Your task to perform on an android device: open app "Pinterest" (install if not already installed) and go to login screen Image 0: 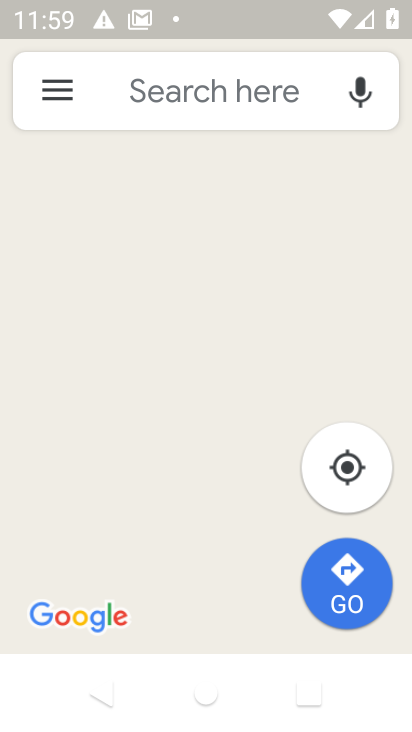
Step 0: press home button
Your task to perform on an android device: open app "Pinterest" (install if not already installed) and go to login screen Image 1: 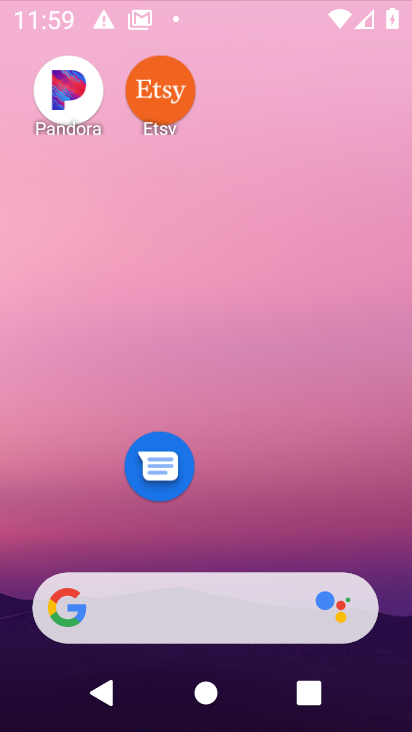
Step 1: press home button
Your task to perform on an android device: open app "Pinterest" (install if not already installed) and go to login screen Image 2: 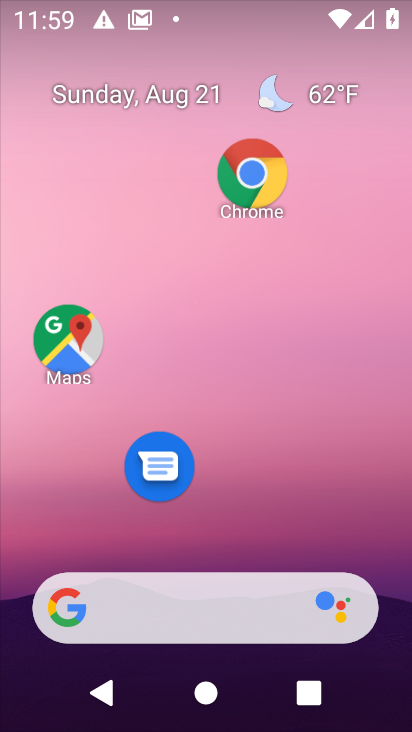
Step 2: drag from (215, 382) to (236, 160)
Your task to perform on an android device: open app "Pinterest" (install if not already installed) and go to login screen Image 3: 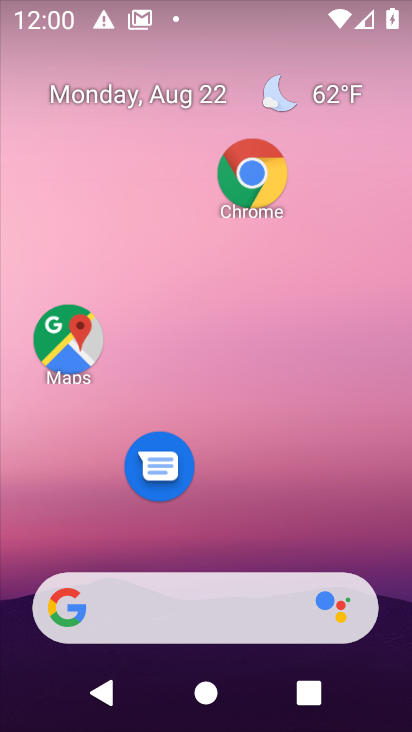
Step 3: drag from (232, 163) to (264, 55)
Your task to perform on an android device: open app "Pinterest" (install if not already installed) and go to login screen Image 4: 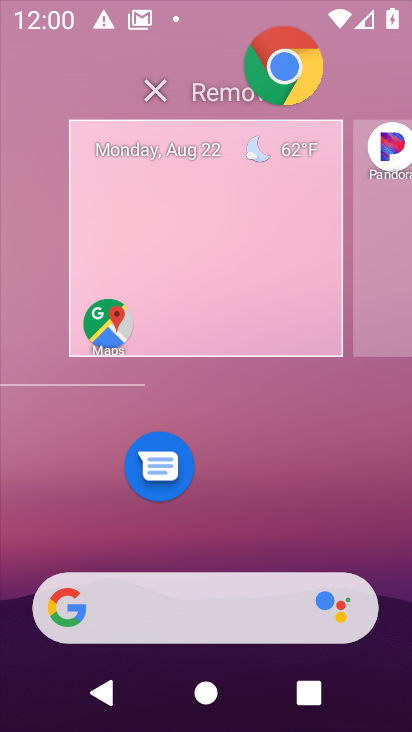
Step 4: click (234, 518)
Your task to perform on an android device: open app "Pinterest" (install if not already installed) and go to login screen Image 5: 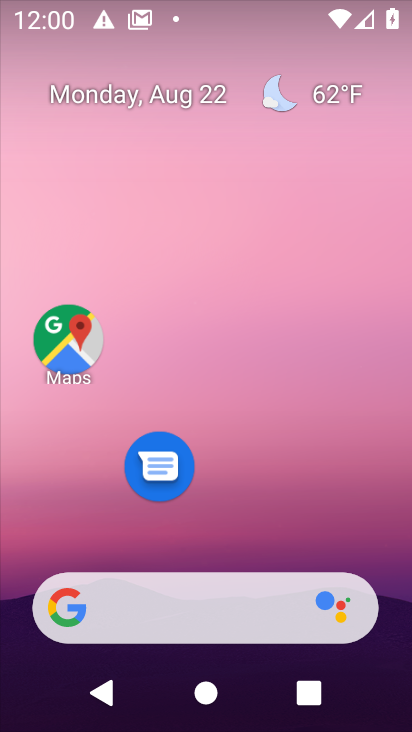
Step 5: drag from (228, 278) to (222, 119)
Your task to perform on an android device: open app "Pinterest" (install if not already installed) and go to login screen Image 6: 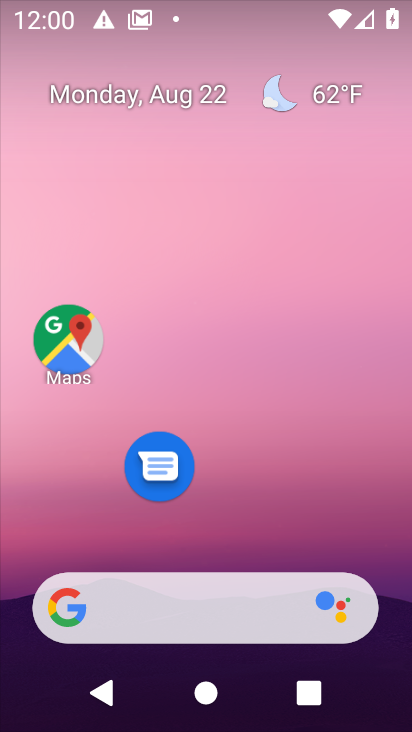
Step 6: drag from (181, 530) to (205, 2)
Your task to perform on an android device: open app "Pinterest" (install if not already installed) and go to login screen Image 7: 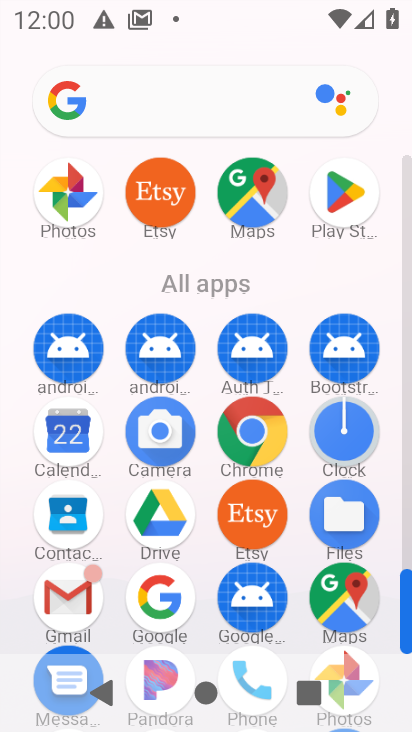
Step 7: click (333, 185)
Your task to perform on an android device: open app "Pinterest" (install if not already installed) and go to login screen Image 8: 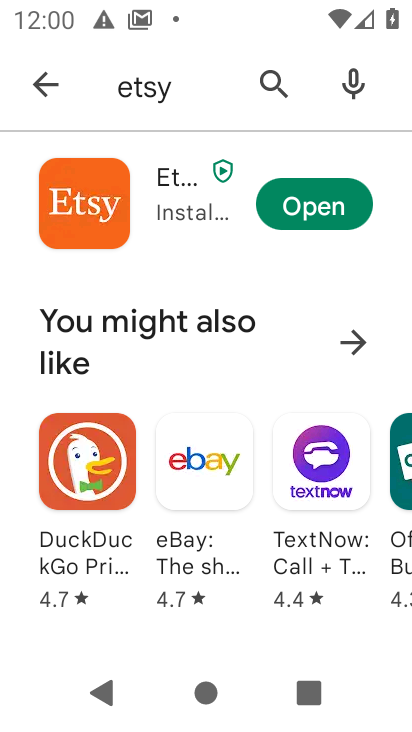
Step 8: click (46, 79)
Your task to perform on an android device: open app "Pinterest" (install if not already installed) and go to login screen Image 9: 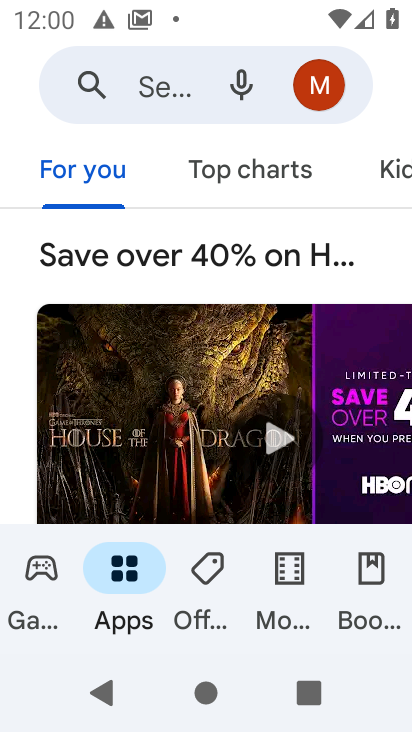
Step 9: click (130, 91)
Your task to perform on an android device: open app "Pinterest" (install if not already installed) and go to login screen Image 10: 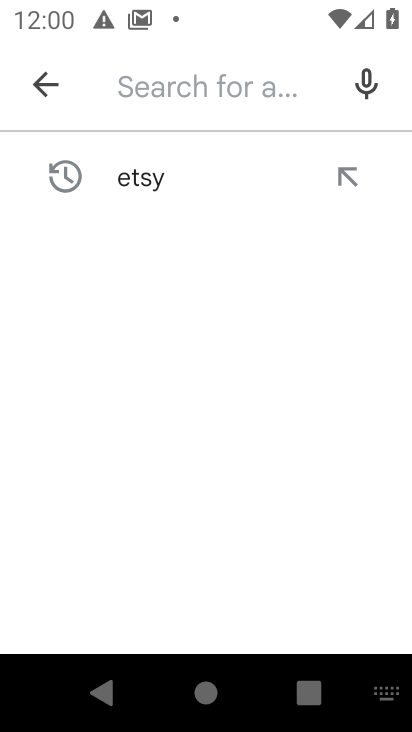
Step 10: type "Pinterest"
Your task to perform on an android device: open app "Pinterest" (install if not already installed) and go to login screen Image 11: 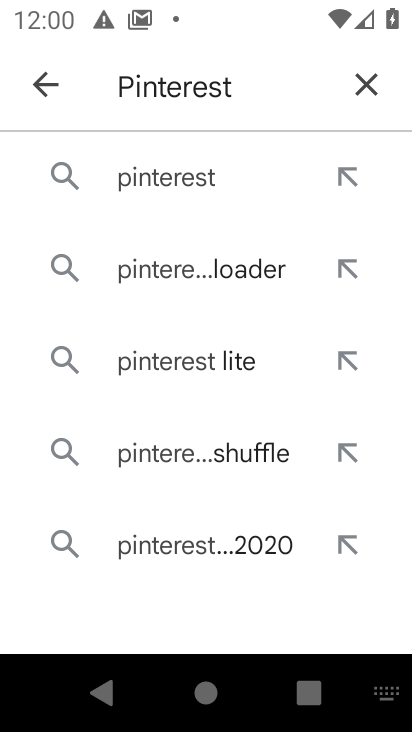
Step 11: click (179, 173)
Your task to perform on an android device: open app "Pinterest" (install if not already installed) and go to login screen Image 12: 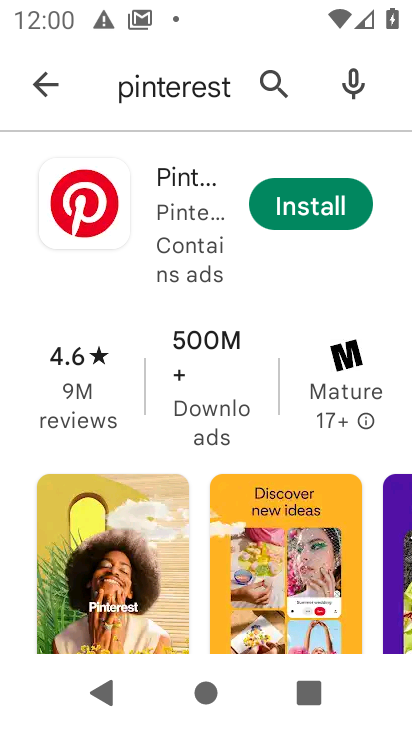
Step 12: click (298, 212)
Your task to perform on an android device: open app "Pinterest" (install if not already installed) and go to login screen Image 13: 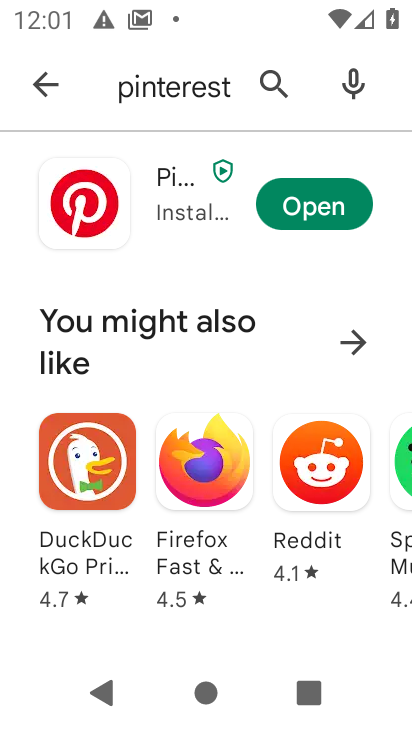
Step 13: click (321, 194)
Your task to perform on an android device: open app "Pinterest" (install if not already installed) and go to login screen Image 14: 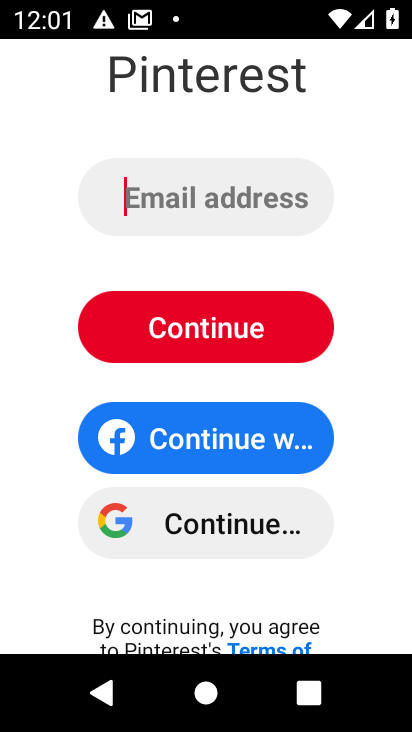
Step 14: task complete